Your task to perform on an android device: turn on the 12-hour format for clock Image 0: 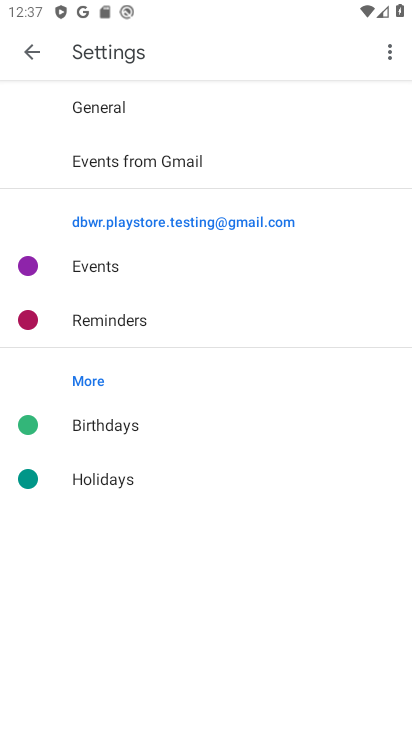
Step 0: press home button
Your task to perform on an android device: turn on the 12-hour format for clock Image 1: 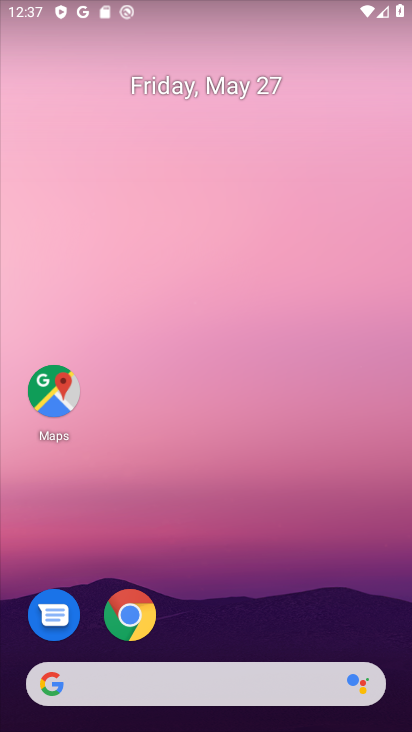
Step 1: drag from (222, 641) to (315, 88)
Your task to perform on an android device: turn on the 12-hour format for clock Image 2: 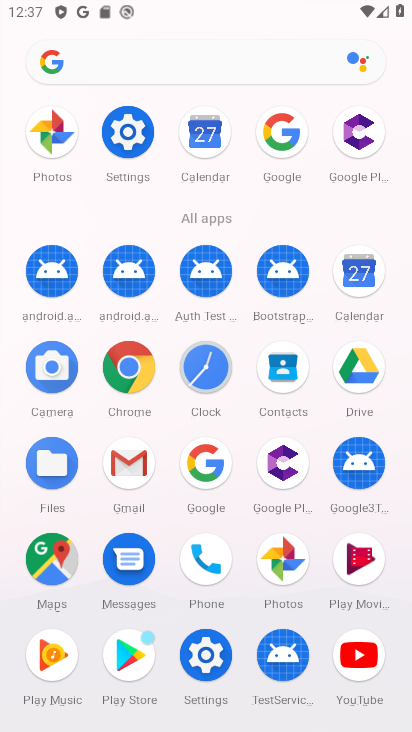
Step 2: click (189, 357)
Your task to perform on an android device: turn on the 12-hour format for clock Image 3: 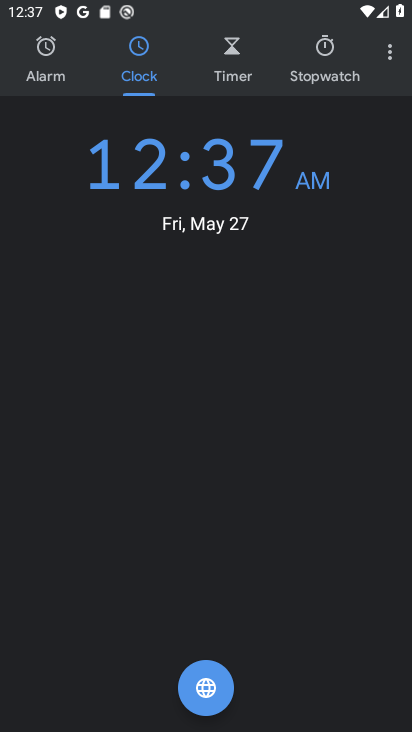
Step 3: click (391, 58)
Your task to perform on an android device: turn on the 12-hour format for clock Image 4: 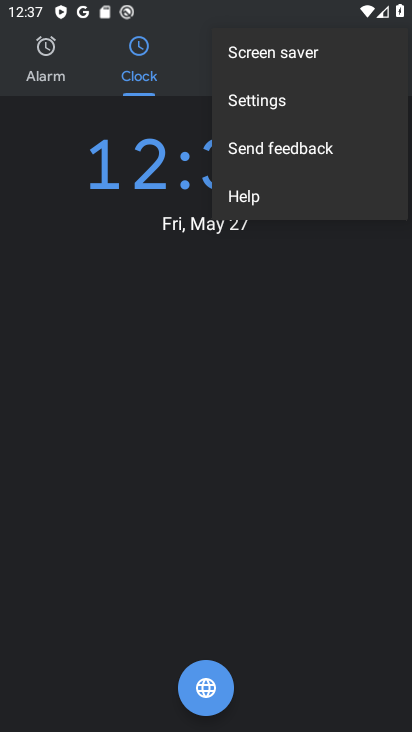
Step 4: click (352, 102)
Your task to perform on an android device: turn on the 12-hour format for clock Image 5: 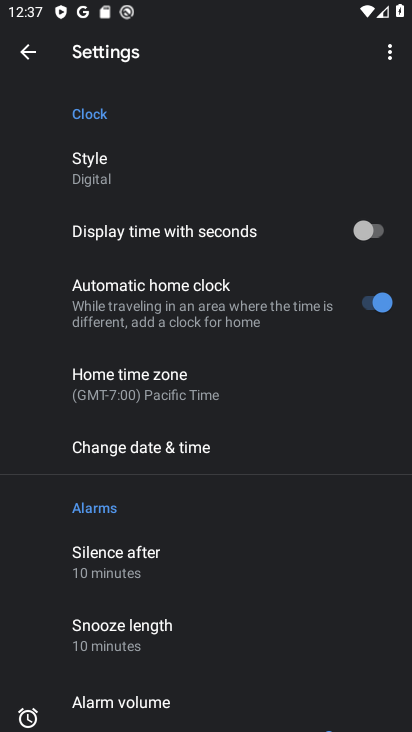
Step 5: click (273, 462)
Your task to perform on an android device: turn on the 12-hour format for clock Image 6: 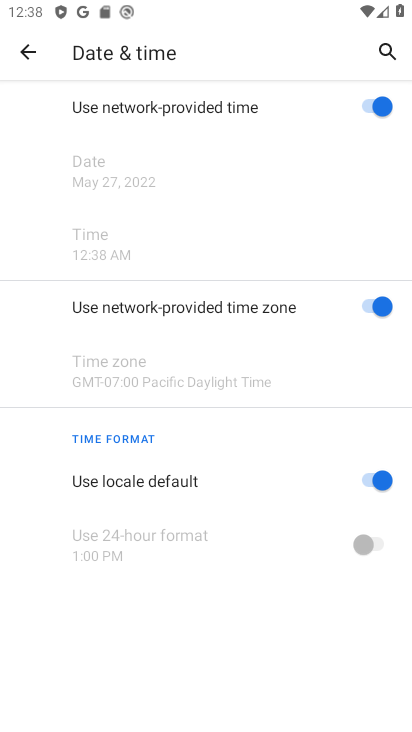
Step 6: task complete